Your task to perform on an android device: turn on the 12-hour format for clock Image 0: 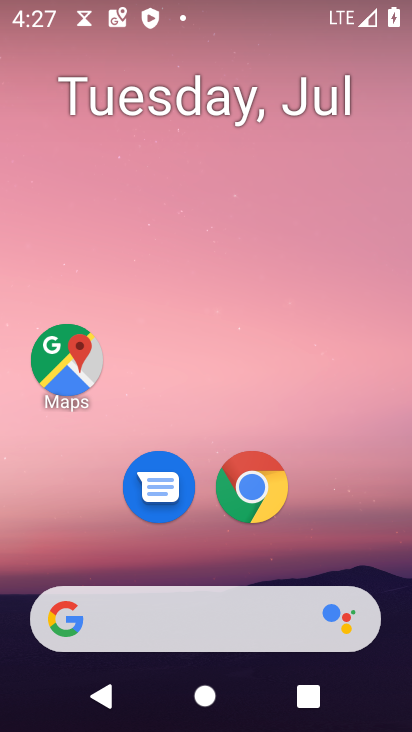
Step 0: drag from (151, 554) to (251, 10)
Your task to perform on an android device: turn on the 12-hour format for clock Image 1: 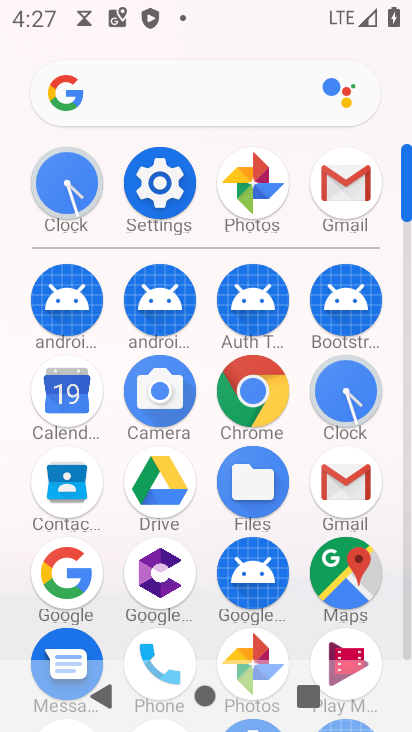
Step 1: click (350, 411)
Your task to perform on an android device: turn on the 12-hour format for clock Image 2: 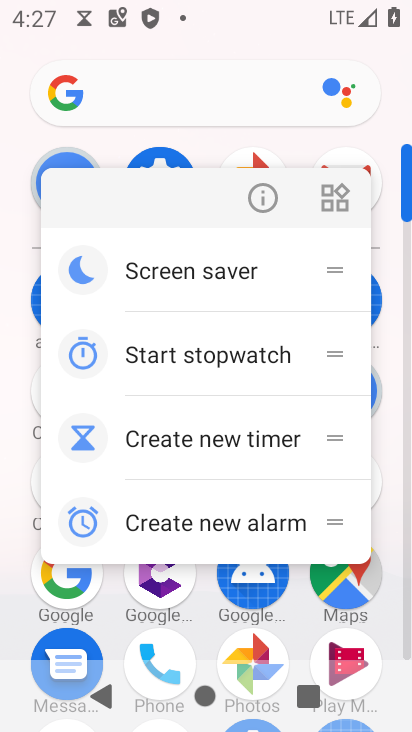
Step 2: click (224, 90)
Your task to perform on an android device: turn on the 12-hour format for clock Image 3: 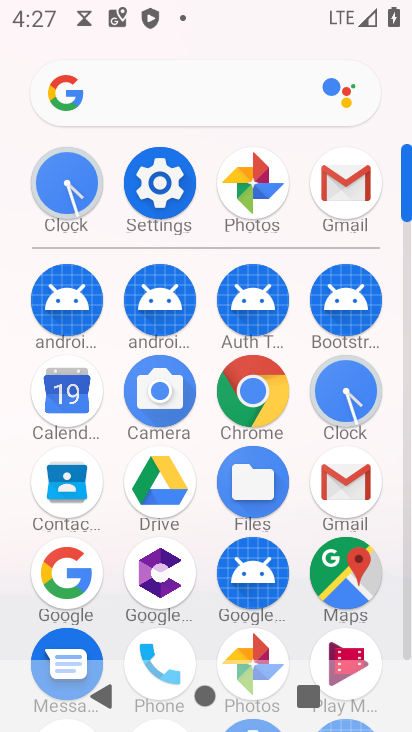
Step 3: click (351, 389)
Your task to perform on an android device: turn on the 12-hour format for clock Image 4: 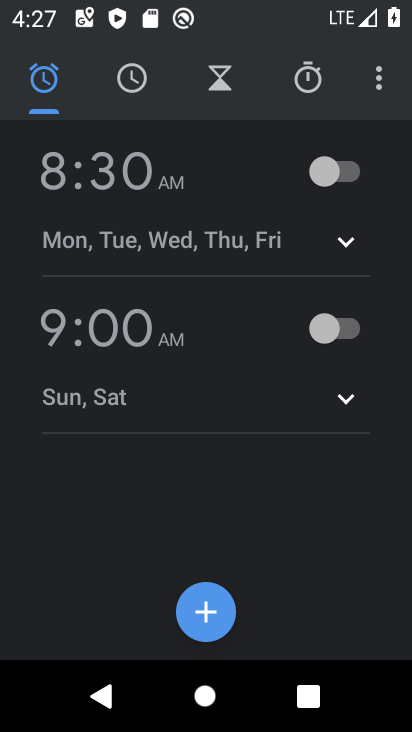
Step 4: click (383, 84)
Your task to perform on an android device: turn on the 12-hour format for clock Image 5: 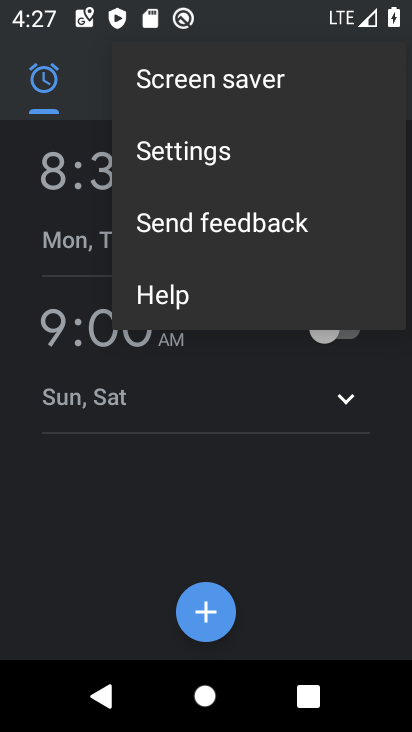
Step 5: click (215, 134)
Your task to perform on an android device: turn on the 12-hour format for clock Image 6: 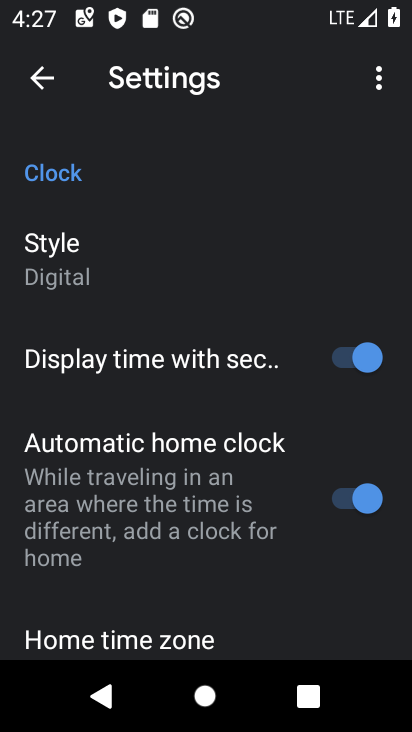
Step 6: drag from (171, 620) to (251, 223)
Your task to perform on an android device: turn on the 12-hour format for clock Image 7: 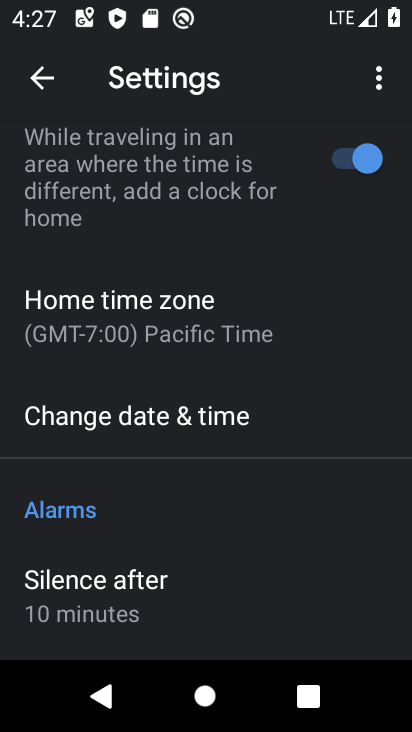
Step 7: click (222, 415)
Your task to perform on an android device: turn on the 12-hour format for clock Image 8: 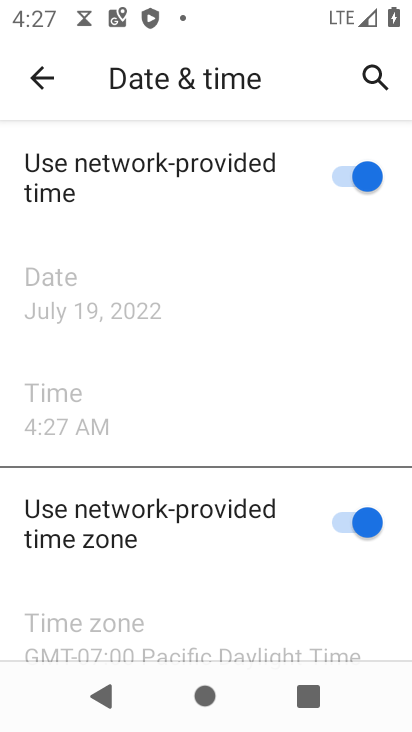
Step 8: task complete